Your task to perform on an android device: Open eBay Image 0: 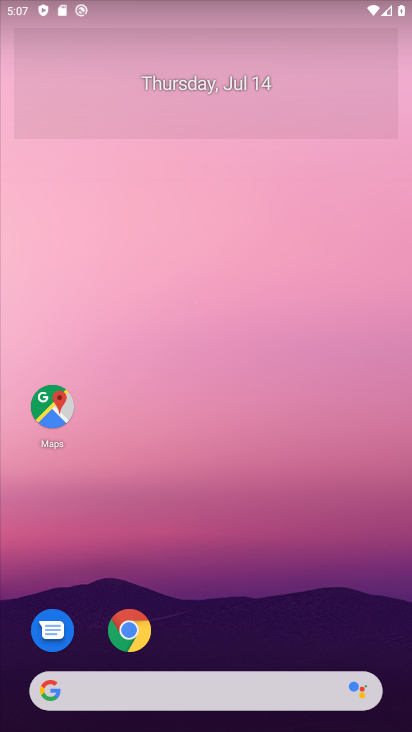
Step 0: click (47, 701)
Your task to perform on an android device: Open eBay Image 1: 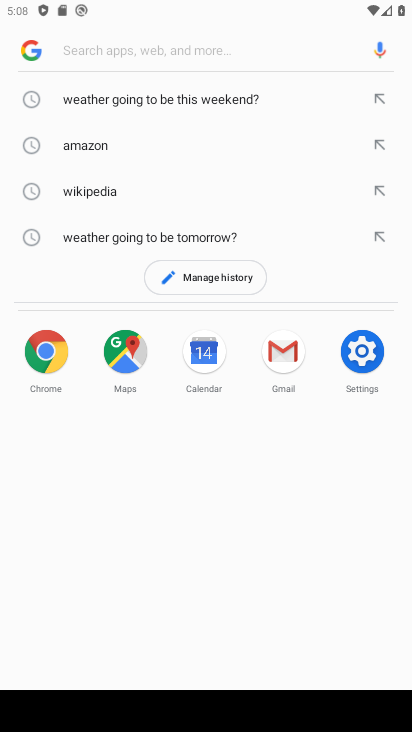
Step 1: press enter
Your task to perform on an android device: Open eBay Image 2: 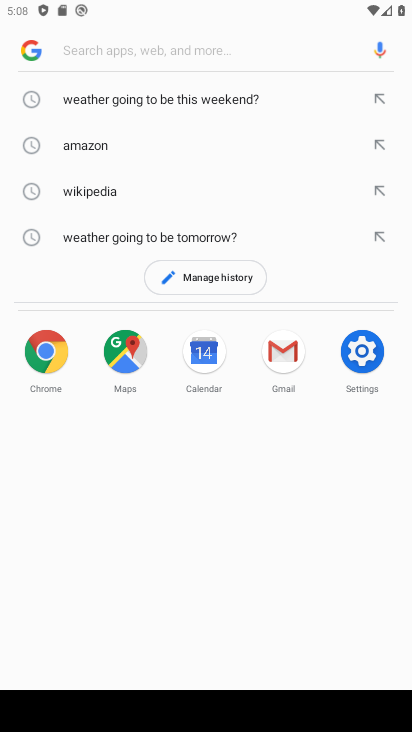
Step 2: type "eBay"
Your task to perform on an android device: Open eBay Image 3: 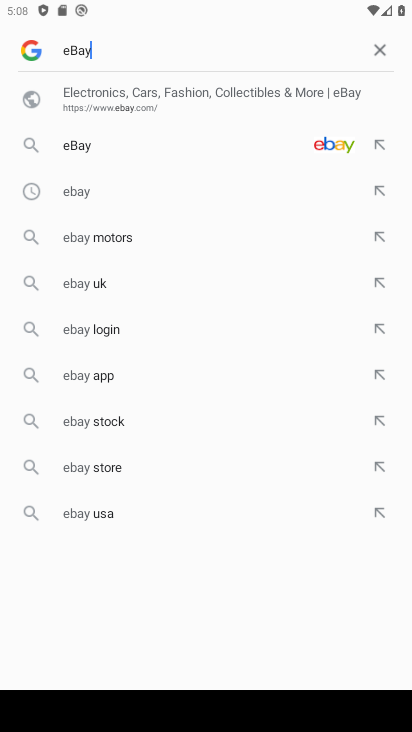
Step 3: click (75, 142)
Your task to perform on an android device: Open eBay Image 4: 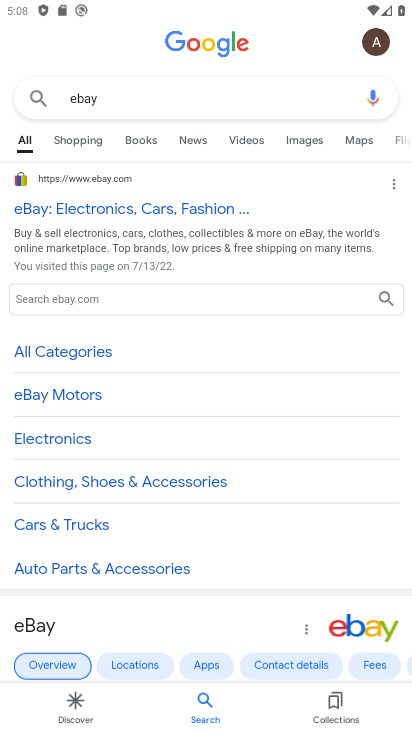
Step 4: click (97, 217)
Your task to perform on an android device: Open eBay Image 5: 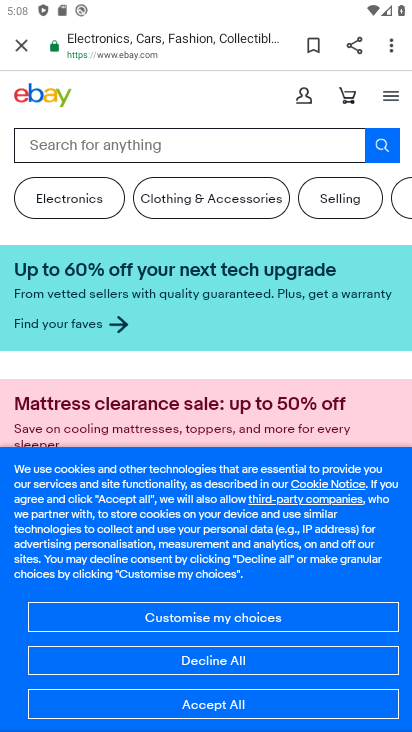
Step 5: task complete